Your task to perform on an android device: Go to ESPN.com Image 0: 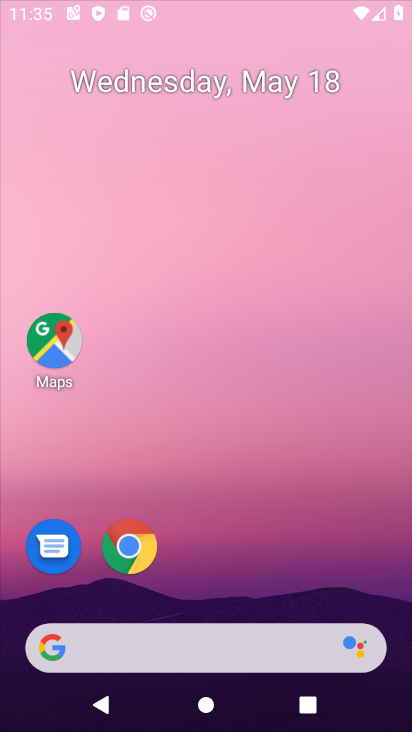
Step 0: drag from (214, 559) to (348, 526)
Your task to perform on an android device: Go to ESPN.com Image 1: 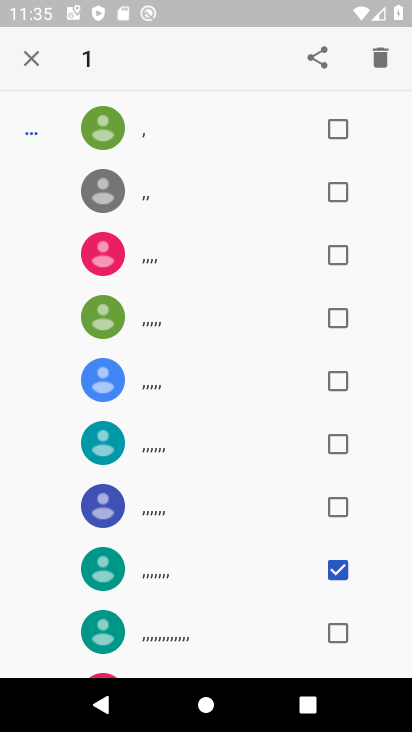
Step 1: press home button
Your task to perform on an android device: Go to ESPN.com Image 2: 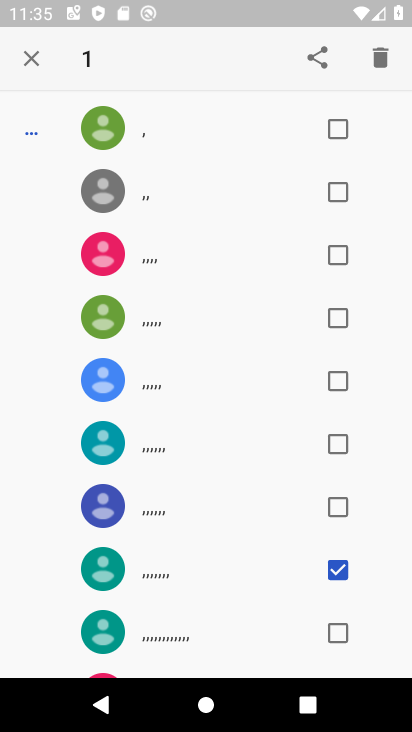
Step 2: click (364, 410)
Your task to perform on an android device: Go to ESPN.com Image 3: 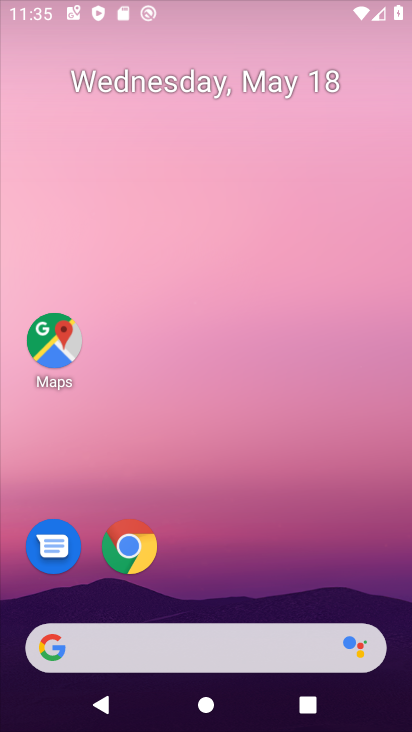
Step 3: drag from (240, 559) to (276, 120)
Your task to perform on an android device: Go to ESPN.com Image 4: 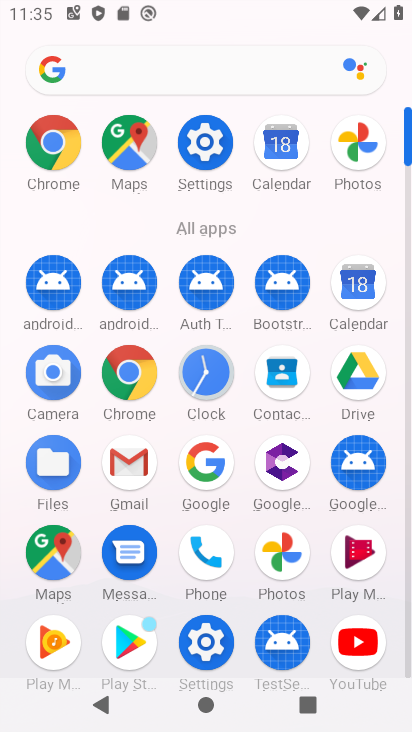
Step 4: drag from (169, 455) to (202, 484)
Your task to perform on an android device: Go to ESPN.com Image 5: 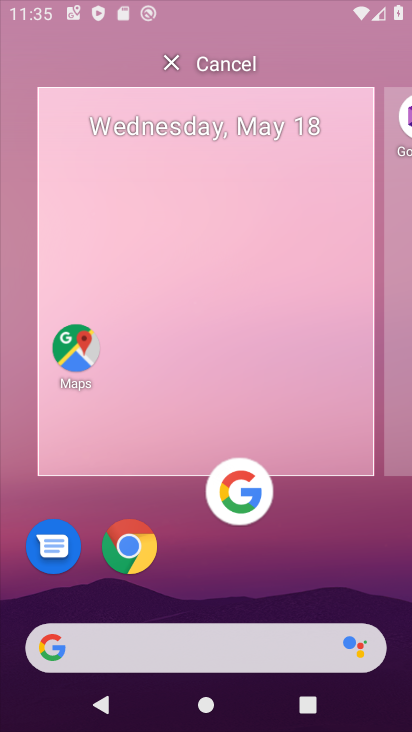
Step 5: click (203, 478)
Your task to perform on an android device: Go to ESPN.com Image 6: 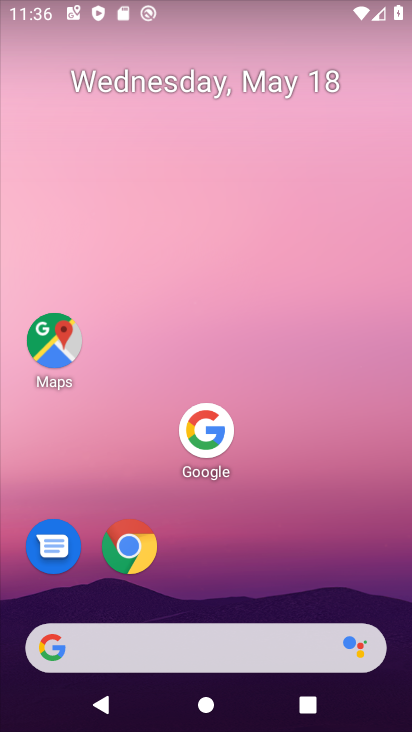
Step 6: click (207, 435)
Your task to perform on an android device: Go to ESPN.com Image 7: 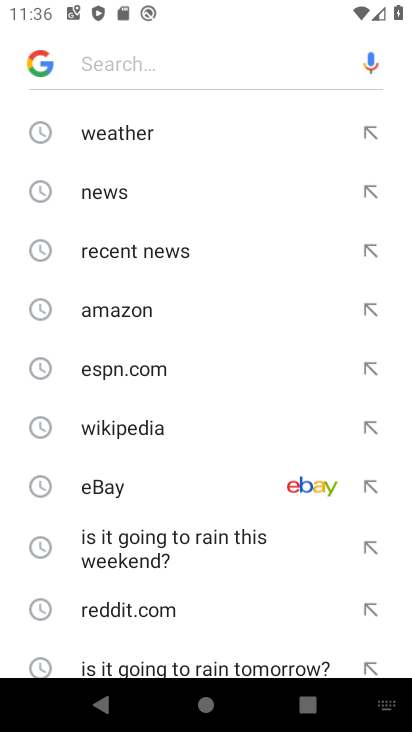
Step 7: drag from (195, 559) to (198, 150)
Your task to perform on an android device: Go to ESPN.com Image 8: 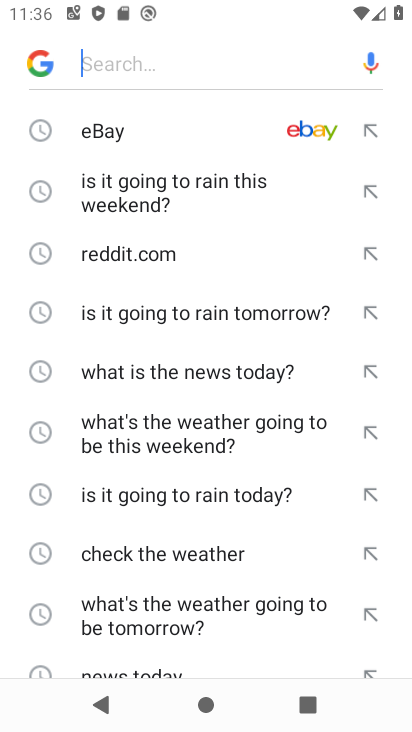
Step 8: drag from (184, 575) to (159, 153)
Your task to perform on an android device: Go to ESPN.com Image 9: 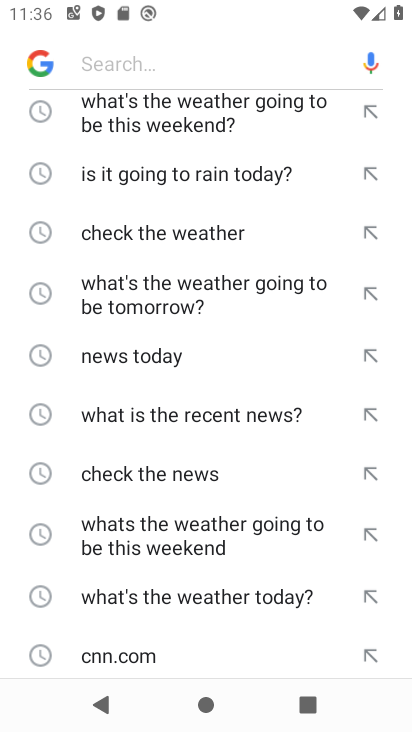
Step 9: drag from (186, 584) to (189, 129)
Your task to perform on an android device: Go to ESPN.com Image 10: 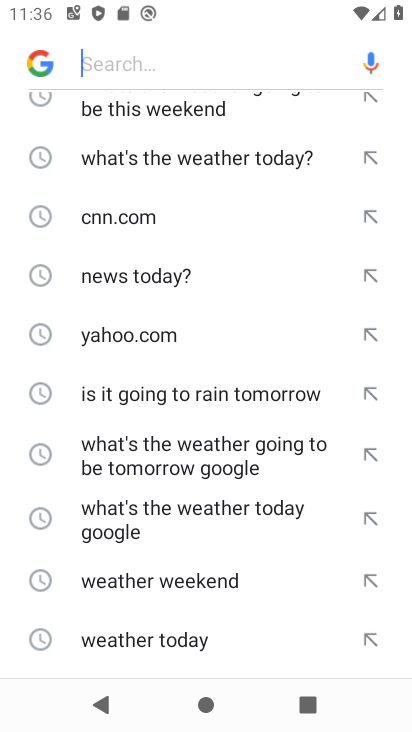
Step 10: type "espn.com"
Your task to perform on an android device: Go to ESPN.com Image 11: 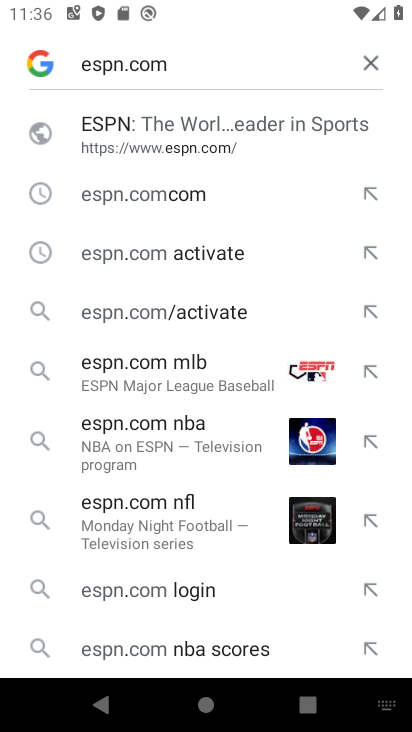
Step 11: click (204, 134)
Your task to perform on an android device: Go to ESPN.com Image 12: 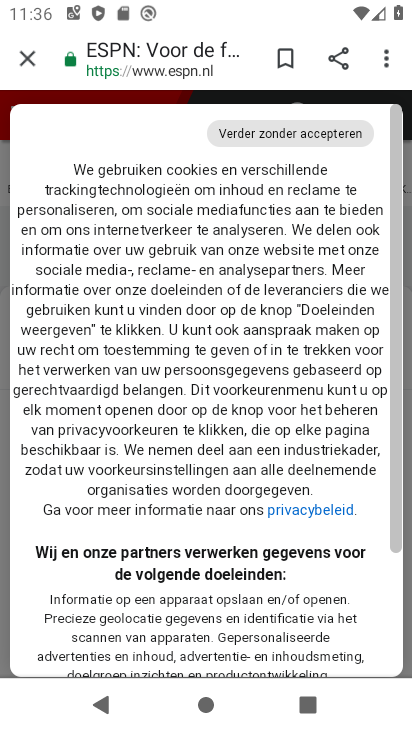
Step 12: task complete